Your task to perform on an android device: Open the map Image 0: 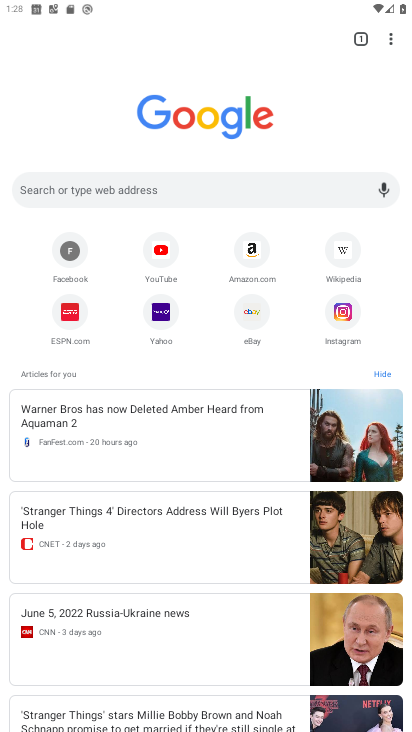
Step 0: press home button
Your task to perform on an android device: Open the map Image 1: 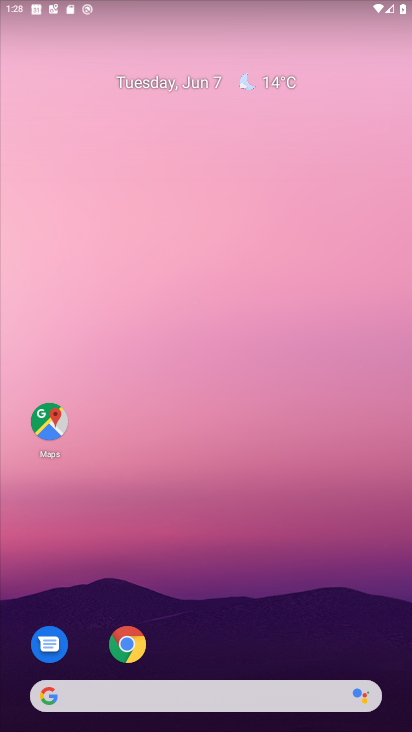
Step 1: click (56, 431)
Your task to perform on an android device: Open the map Image 2: 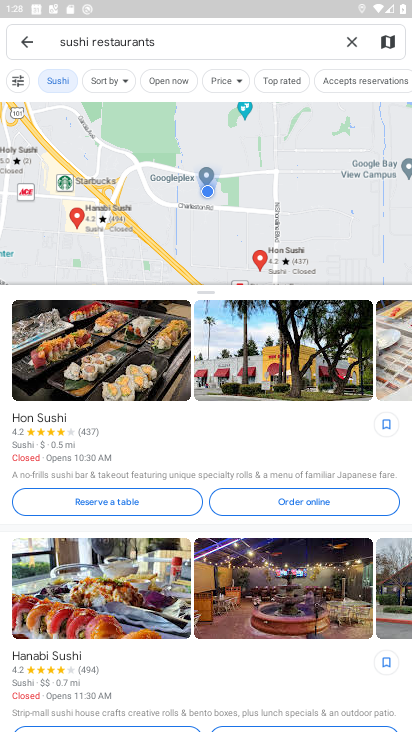
Step 2: task complete